Your task to perform on an android device: What is the recent news? Image 0: 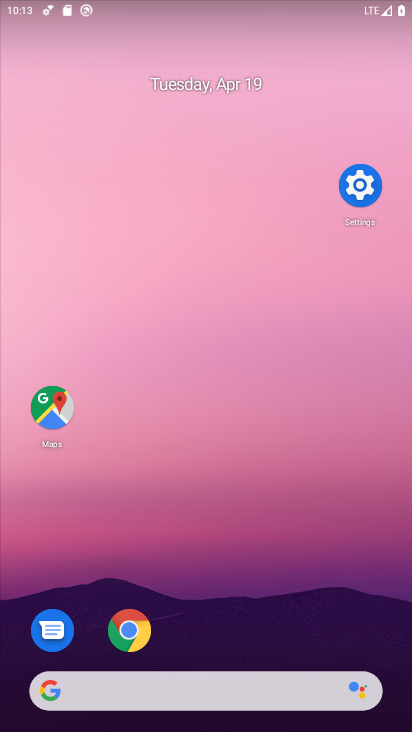
Step 0: drag from (211, 658) to (185, 239)
Your task to perform on an android device: What is the recent news? Image 1: 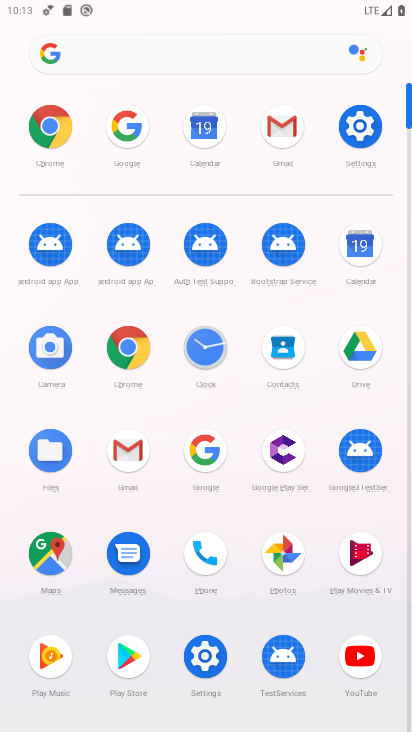
Step 1: click (204, 455)
Your task to perform on an android device: What is the recent news? Image 2: 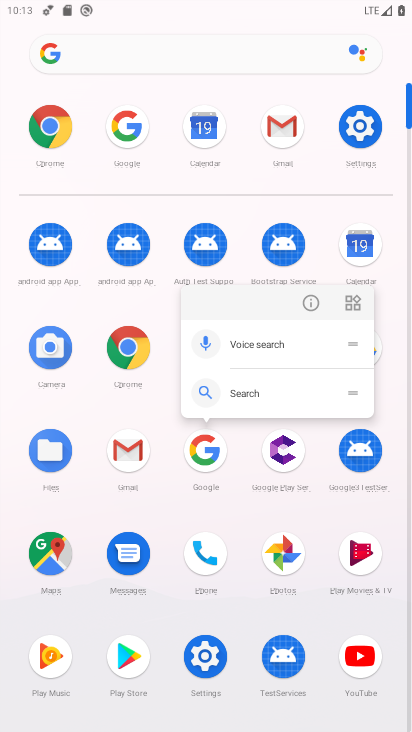
Step 2: click (214, 462)
Your task to perform on an android device: What is the recent news? Image 3: 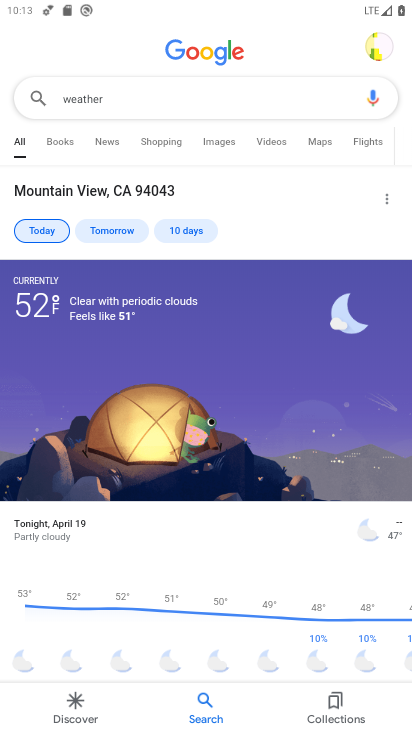
Step 3: click (110, 144)
Your task to perform on an android device: What is the recent news? Image 4: 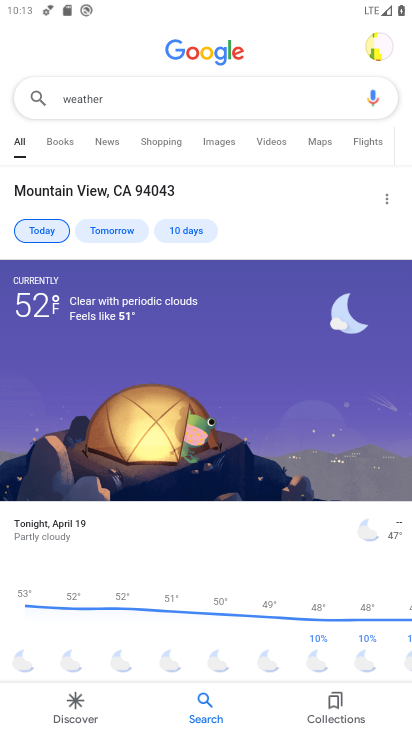
Step 4: task complete